Your task to perform on an android device: Show me recent news Image 0: 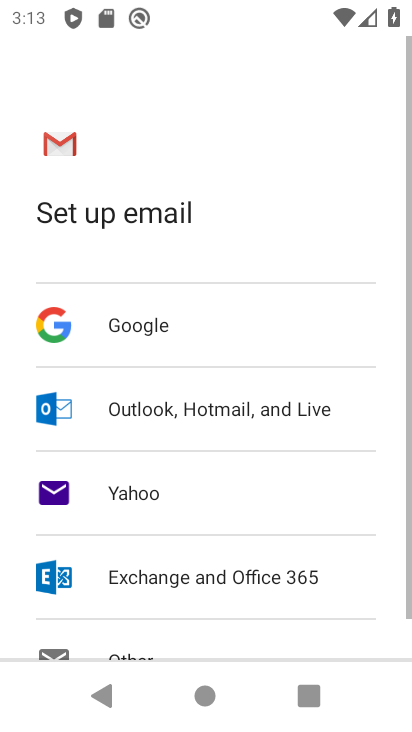
Step 0: press home button
Your task to perform on an android device: Show me recent news Image 1: 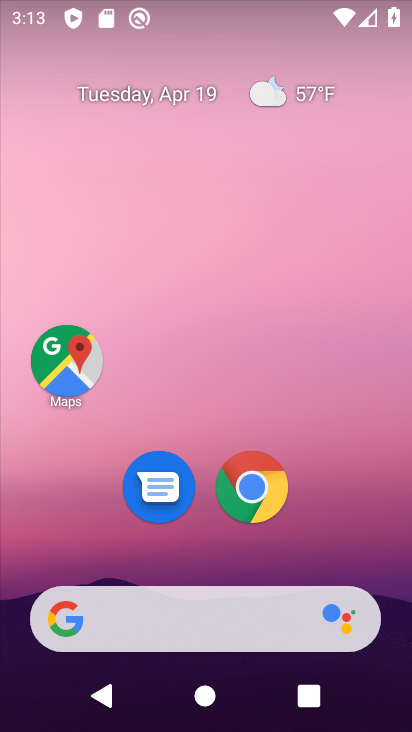
Step 1: drag from (373, 527) to (394, 119)
Your task to perform on an android device: Show me recent news Image 2: 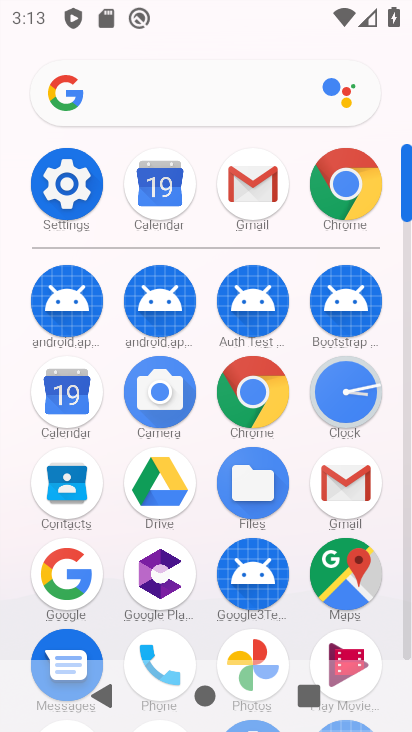
Step 2: click (260, 399)
Your task to perform on an android device: Show me recent news Image 3: 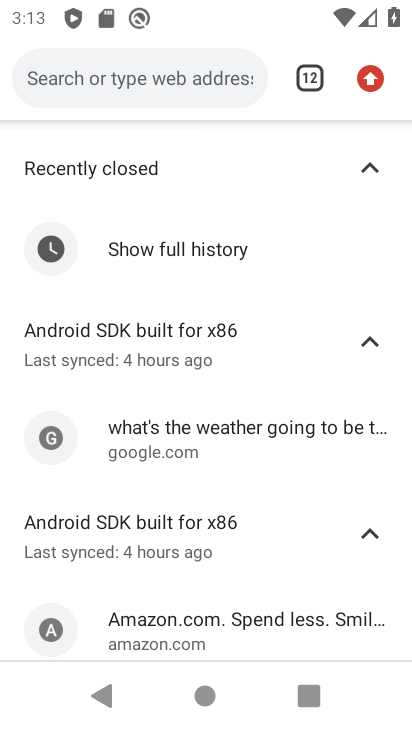
Step 3: click (315, 83)
Your task to perform on an android device: Show me recent news Image 4: 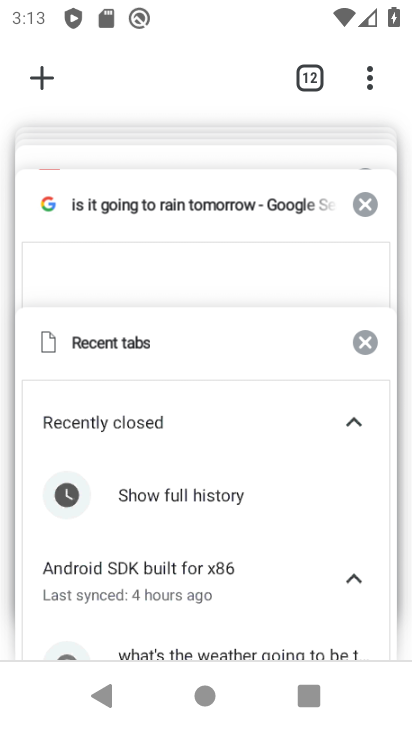
Step 4: click (37, 77)
Your task to perform on an android device: Show me recent news Image 5: 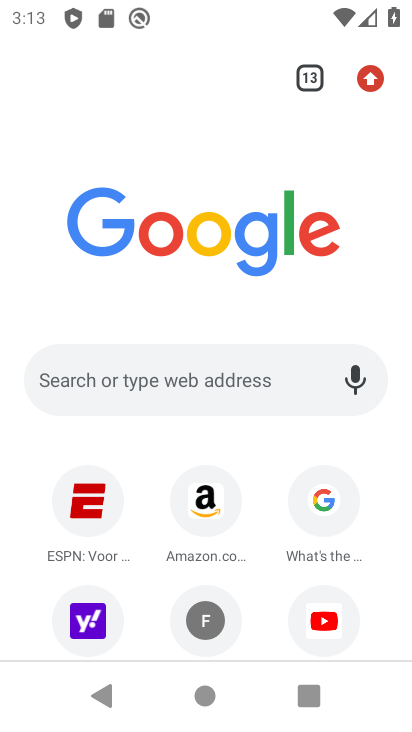
Step 5: click (183, 366)
Your task to perform on an android device: Show me recent news Image 6: 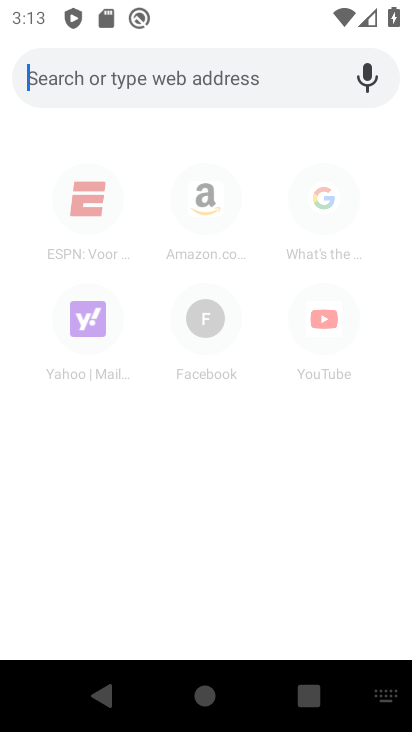
Step 6: type "recent news"
Your task to perform on an android device: Show me recent news Image 7: 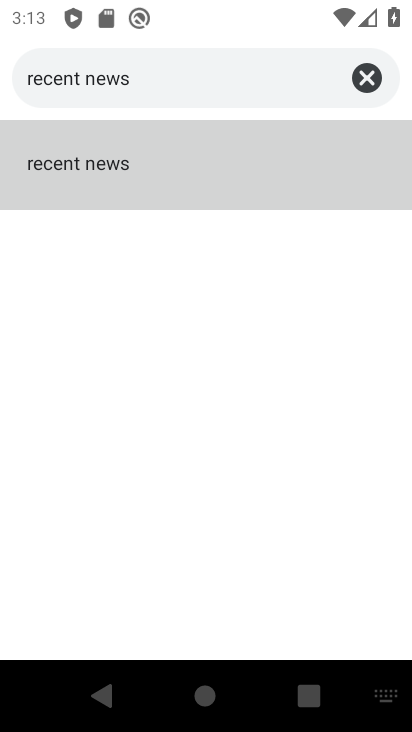
Step 7: click (54, 157)
Your task to perform on an android device: Show me recent news Image 8: 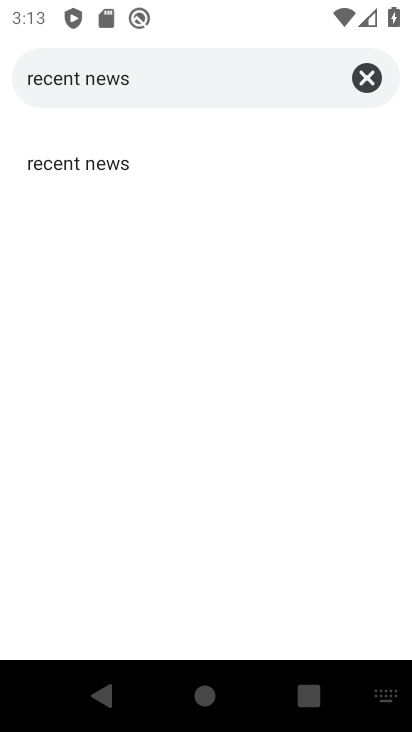
Step 8: click (60, 167)
Your task to perform on an android device: Show me recent news Image 9: 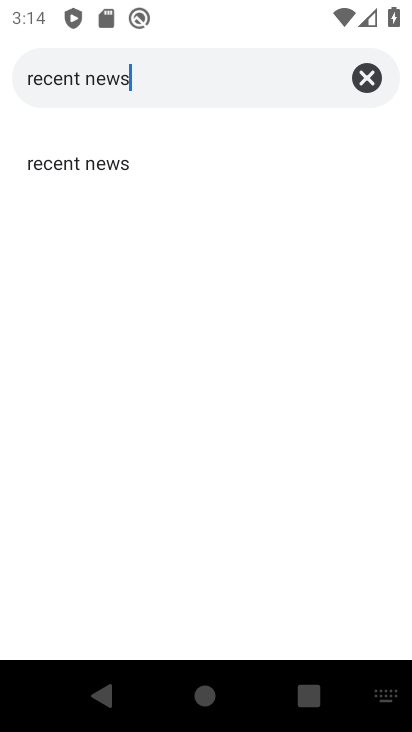
Step 9: click (60, 167)
Your task to perform on an android device: Show me recent news Image 10: 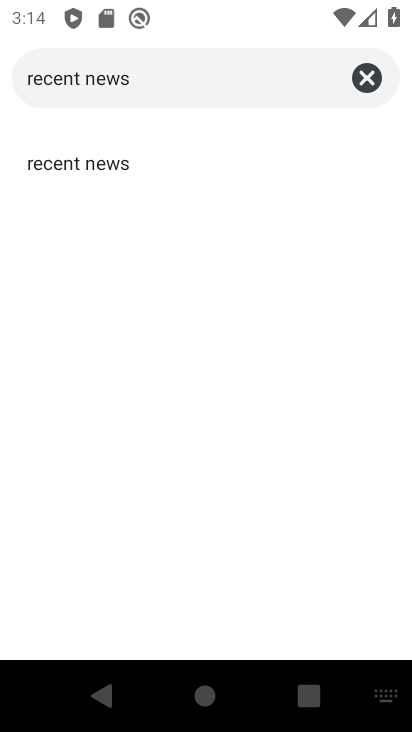
Step 10: click (196, 71)
Your task to perform on an android device: Show me recent news Image 11: 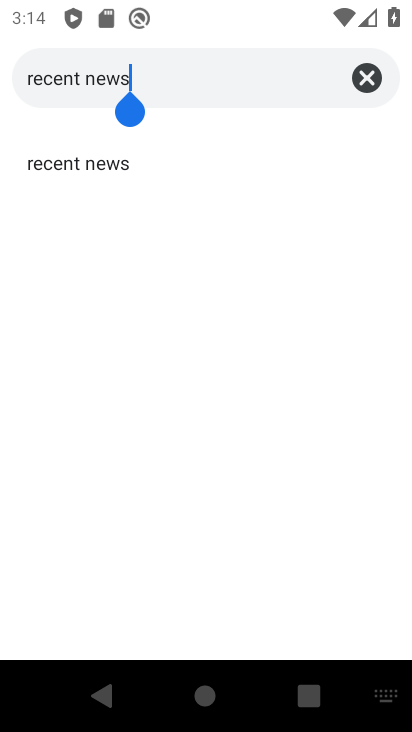
Step 11: click (129, 158)
Your task to perform on an android device: Show me recent news Image 12: 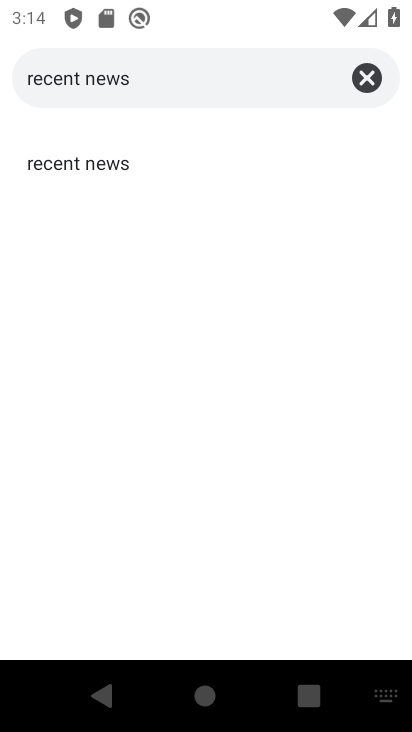
Step 12: click (63, 168)
Your task to perform on an android device: Show me recent news Image 13: 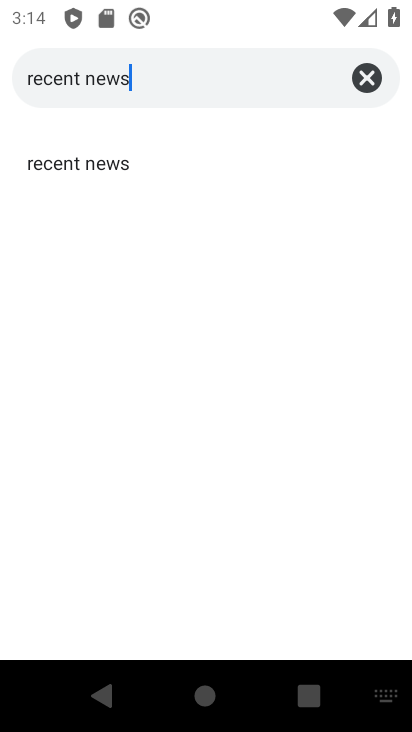
Step 13: click (62, 171)
Your task to perform on an android device: Show me recent news Image 14: 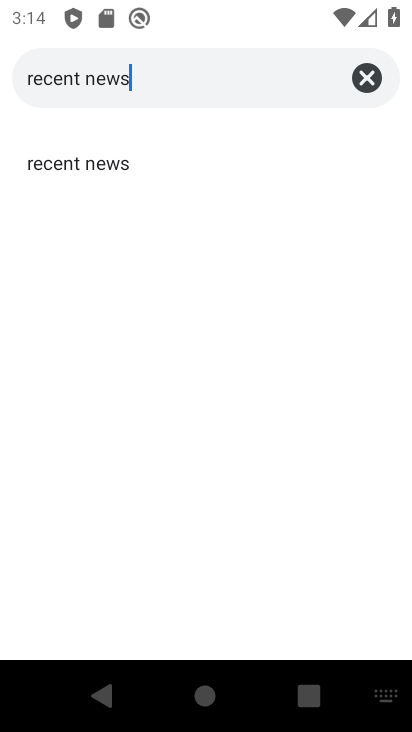
Step 14: task complete